Your task to perform on an android device: Search for seafood restaurants on Google Maps Image 0: 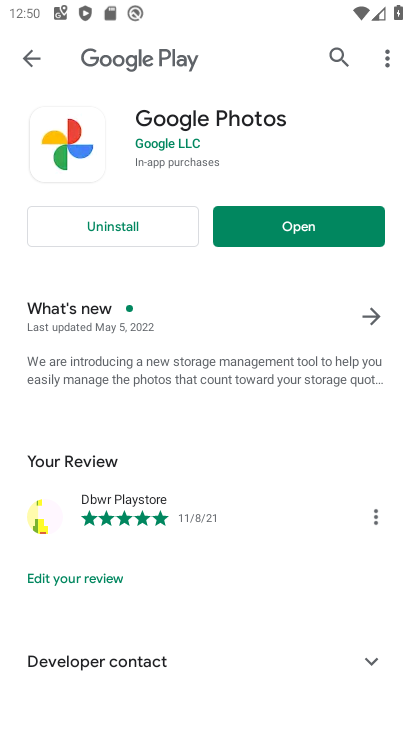
Step 0: press home button
Your task to perform on an android device: Search for seafood restaurants on Google Maps Image 1: 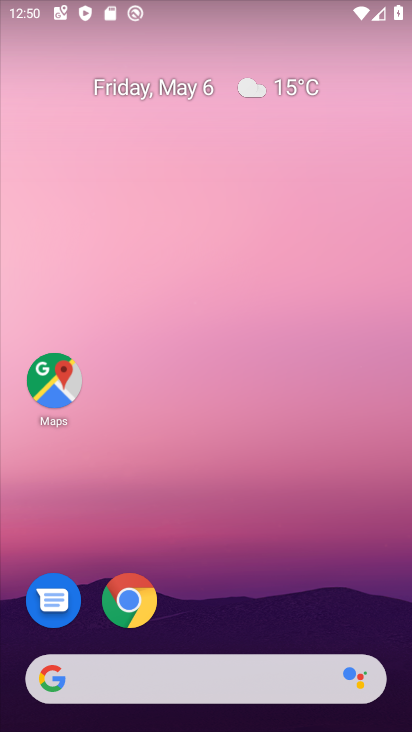
Step 1: drag from (320, 606) to (371, 111)
Your task to perform on an android device: Search for seafood restaurants on Google Maps Image 2: 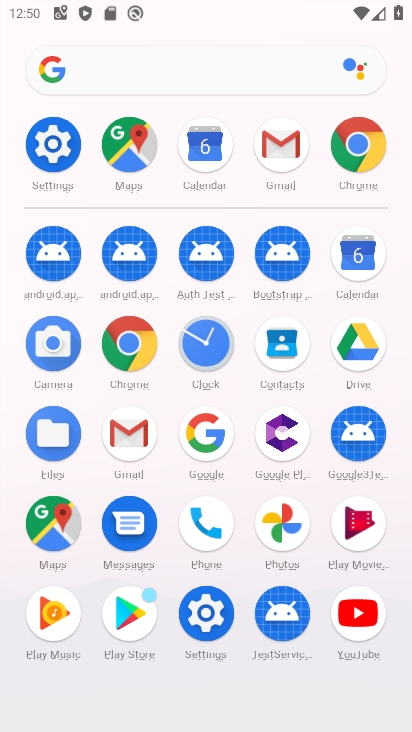
Step 2: click (45, 508)
Your task to perform on an android device: Search for seafood restaurants on Google Maps Image 3: 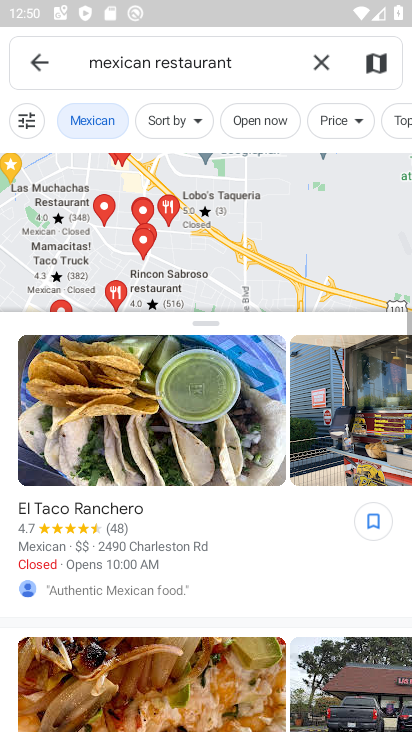
Step 3: click (326, 62)
Your task to perform on an android device: Search for seafood restaurants on Google Maps Image 4: 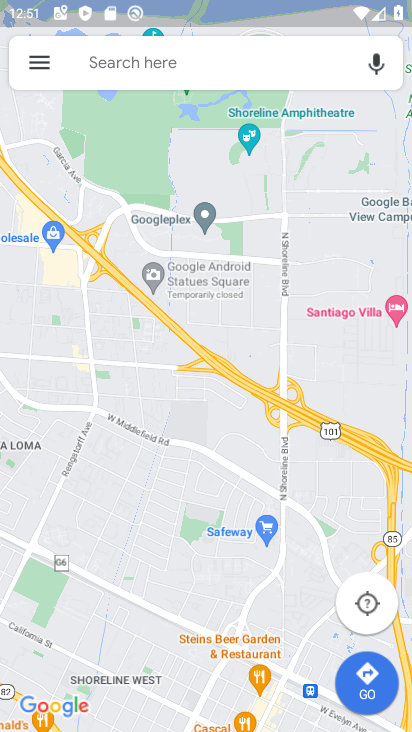
Step 4: click (157, 60)
Your task to perform on an android device: Search for seafood restaurants on Google Maps Image 5: 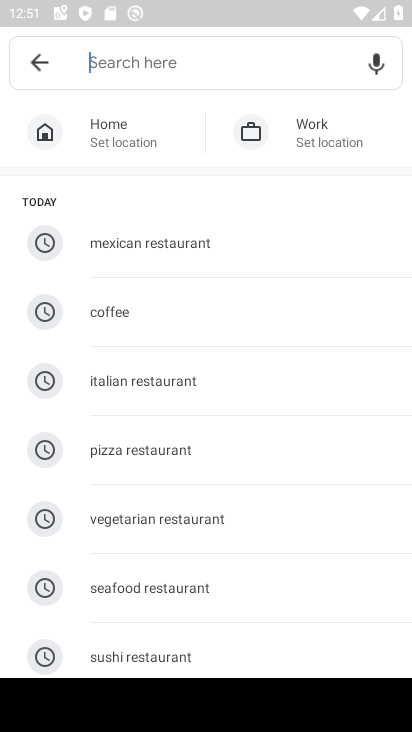
Step 5: click (153, 601)
Your task to perform on an android device: Search for seafood restaurants on Google Maps Image 6: 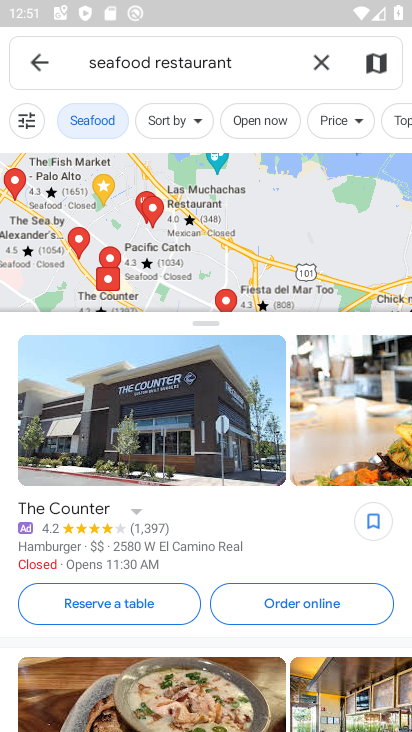
Step 6: task complete